Your task to perform on an android device: Search for razer blackwidow on walmart, select the first entry, and add it to the cart. Image 0: 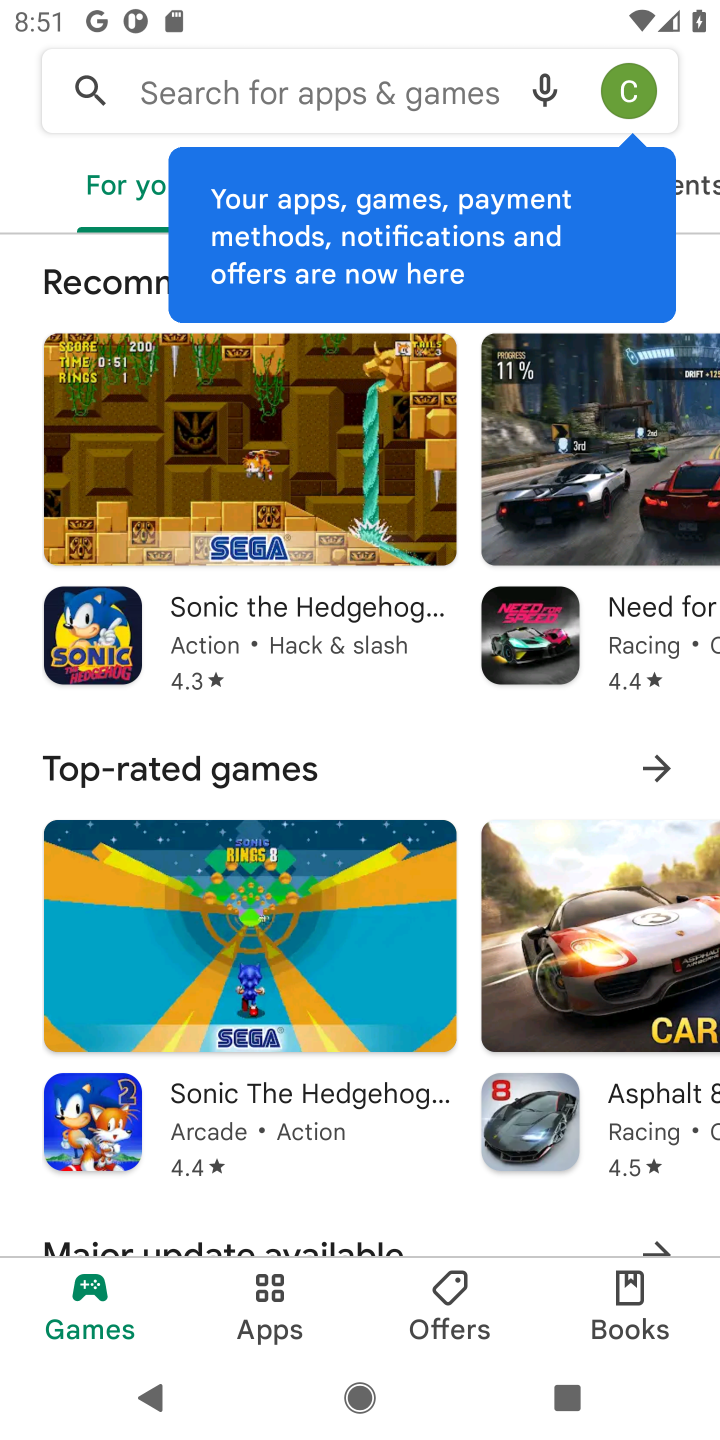
Step 0: press home button
Your task to perform on an android device: Search for razer blackwidow on walmart, select the first entry, and add it to the cart. Image 1: 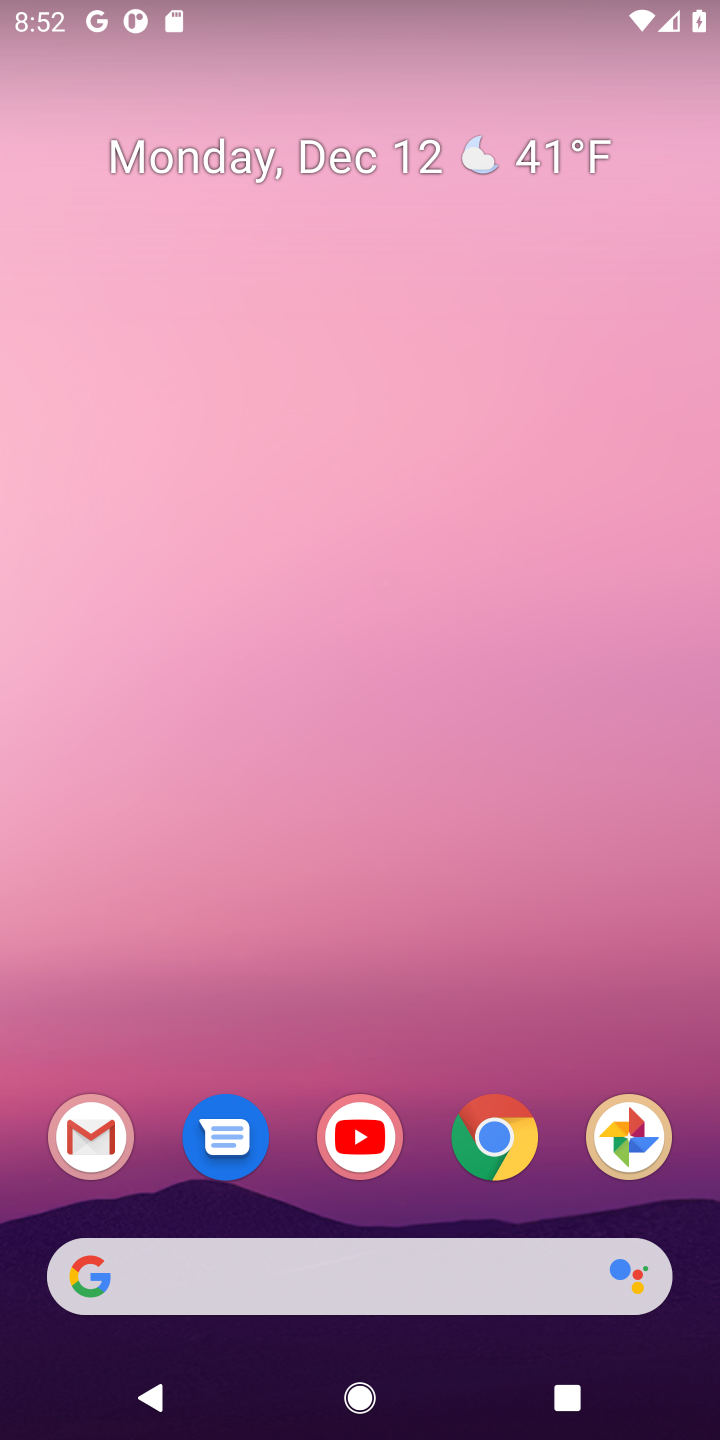
Step 1: click (494, 1135)
Your task to perform on an android device: Search for razer blackwidow on walmart, select the first entry, and add it to the cart. Image 2: 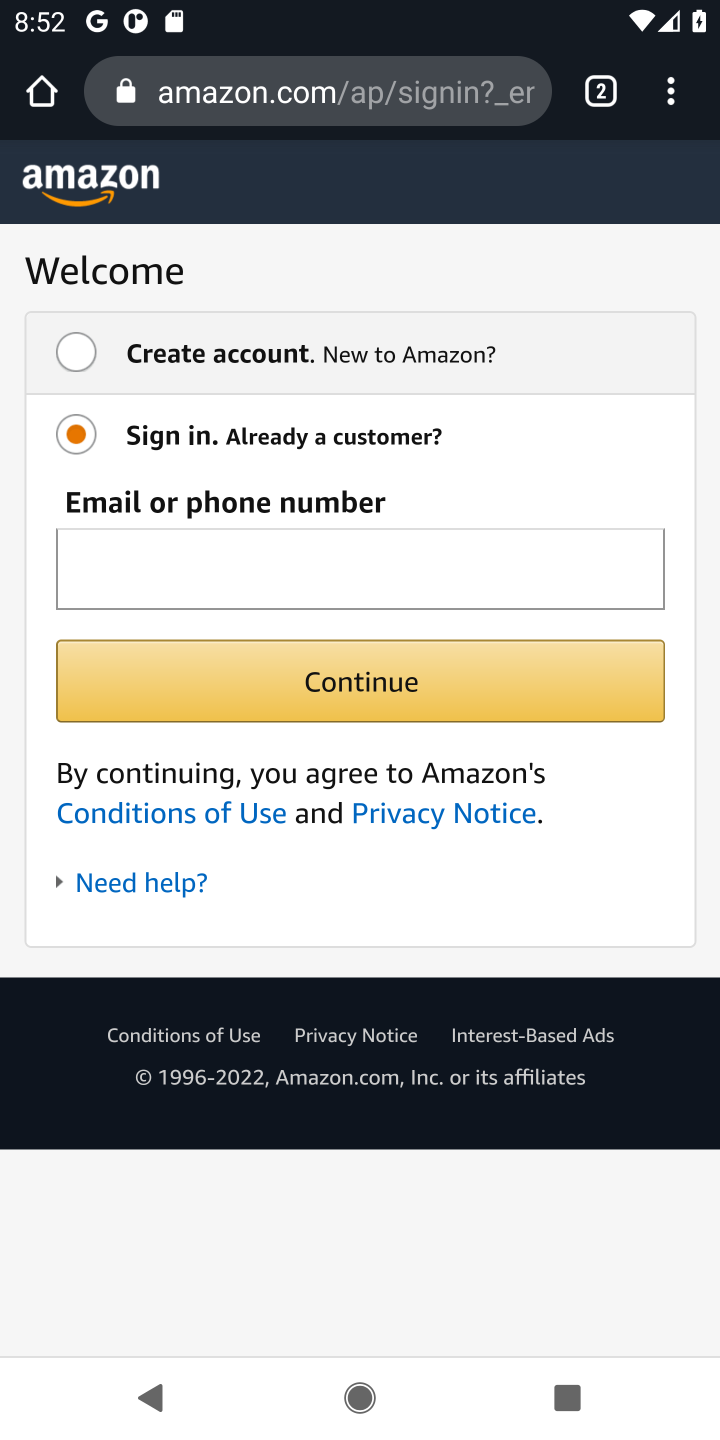
Step 2: click (336, 86)
Your task to perform on an android device: Search for razer blackwidow on walmart, select the first entry, and add it to the cart. Image 3: 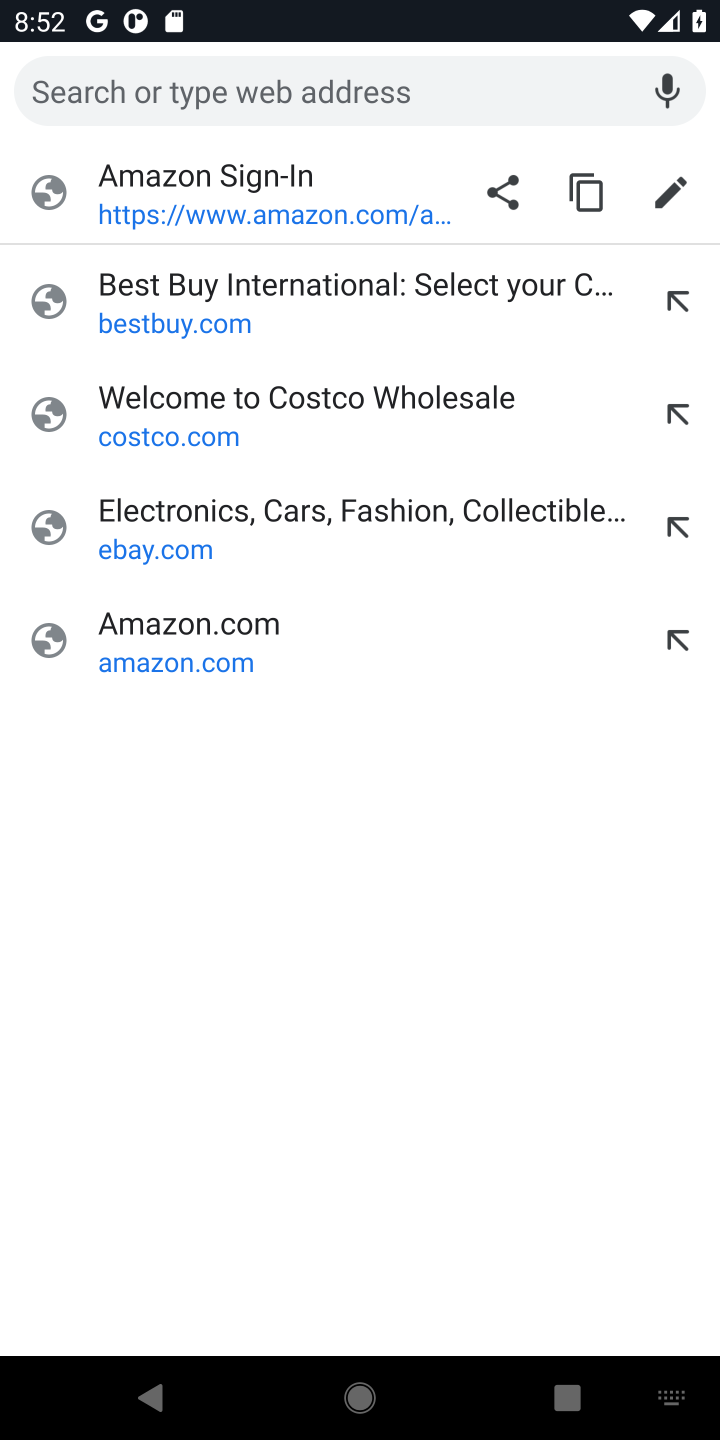
Step 3: type "WALMART"
Your task to perform on an android device: Search for razer blackwidow on walmart, select the first entry, and add it to the cart. Image 4: 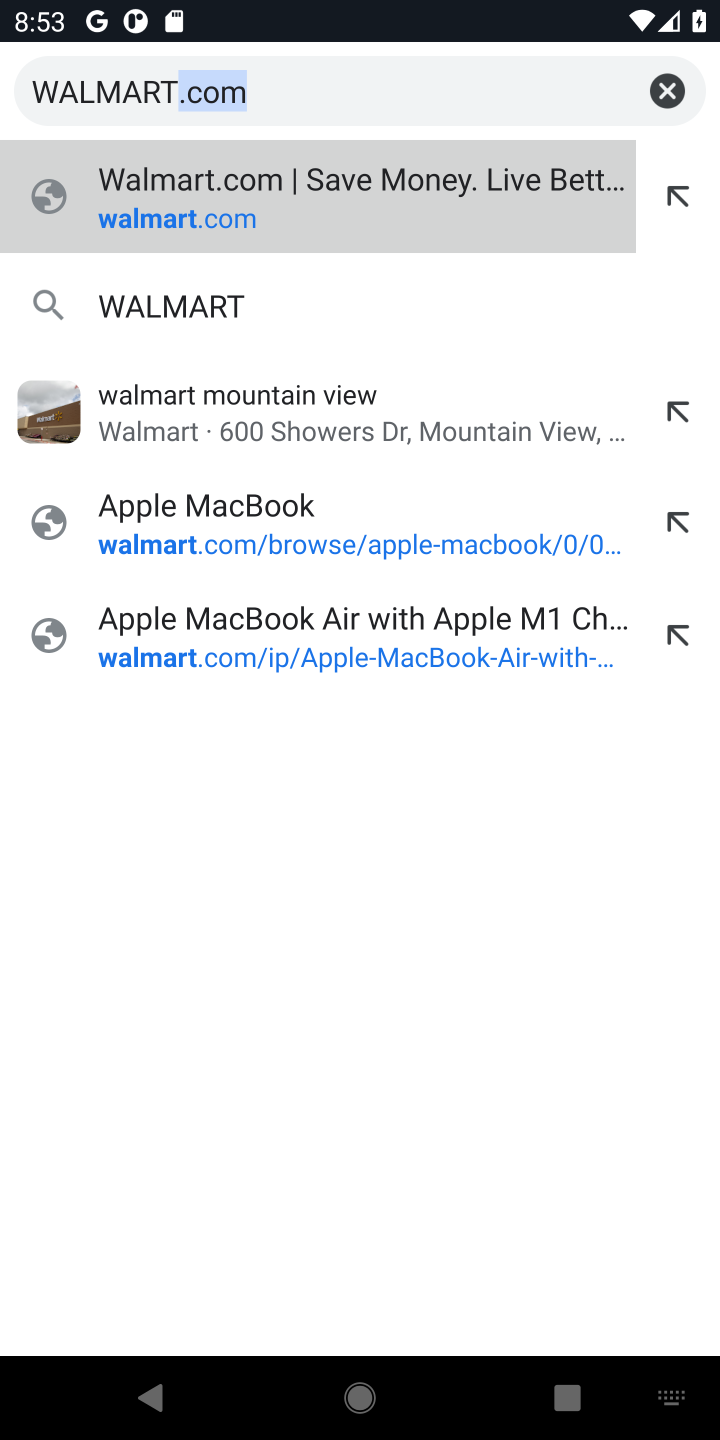
Step 4: click (270, 214)
Your task to perform on an android device: Search for razer blackwidow on walmart, select the first entry, and add it to the cart. Image 5: 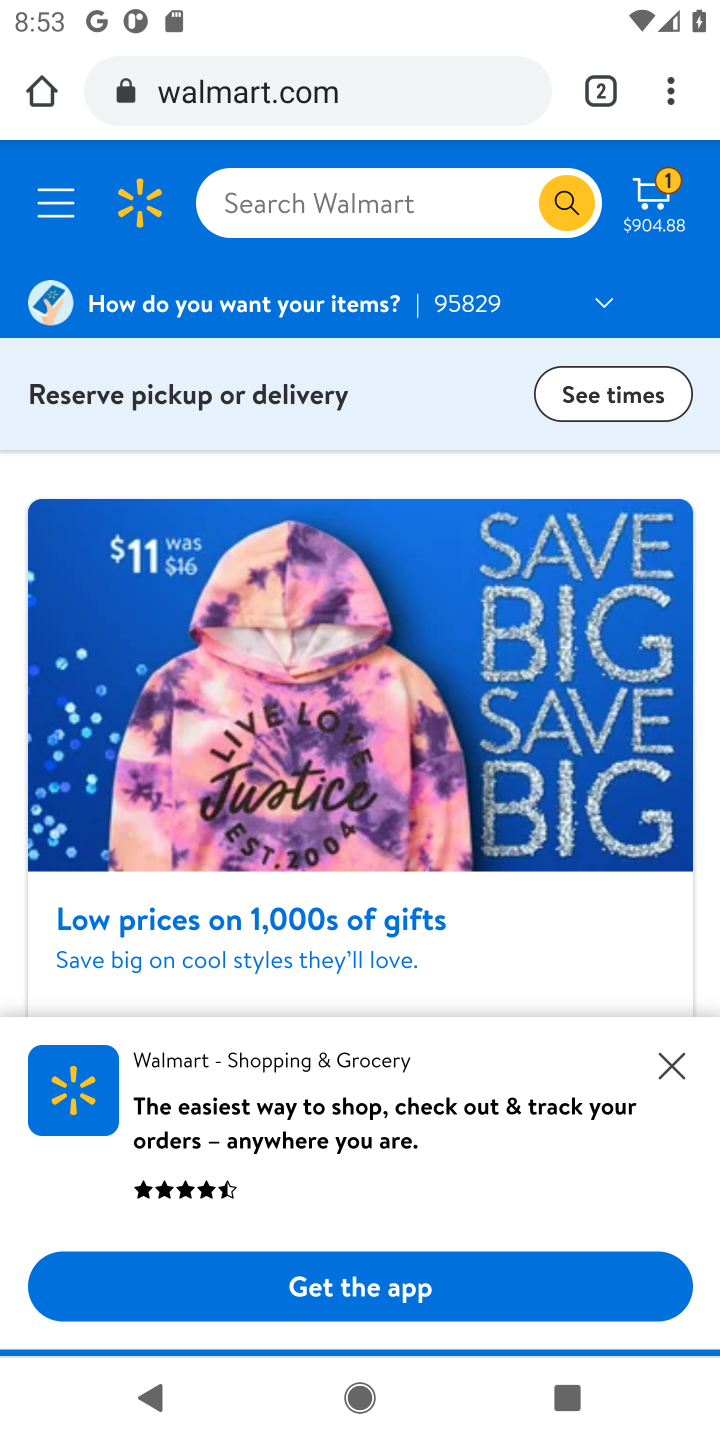
Step 5: click (412, 187)
Your task to perform on an android device: Search for razer blackwidow on walmart, select the first entry, and add it to the cart. Image 6: 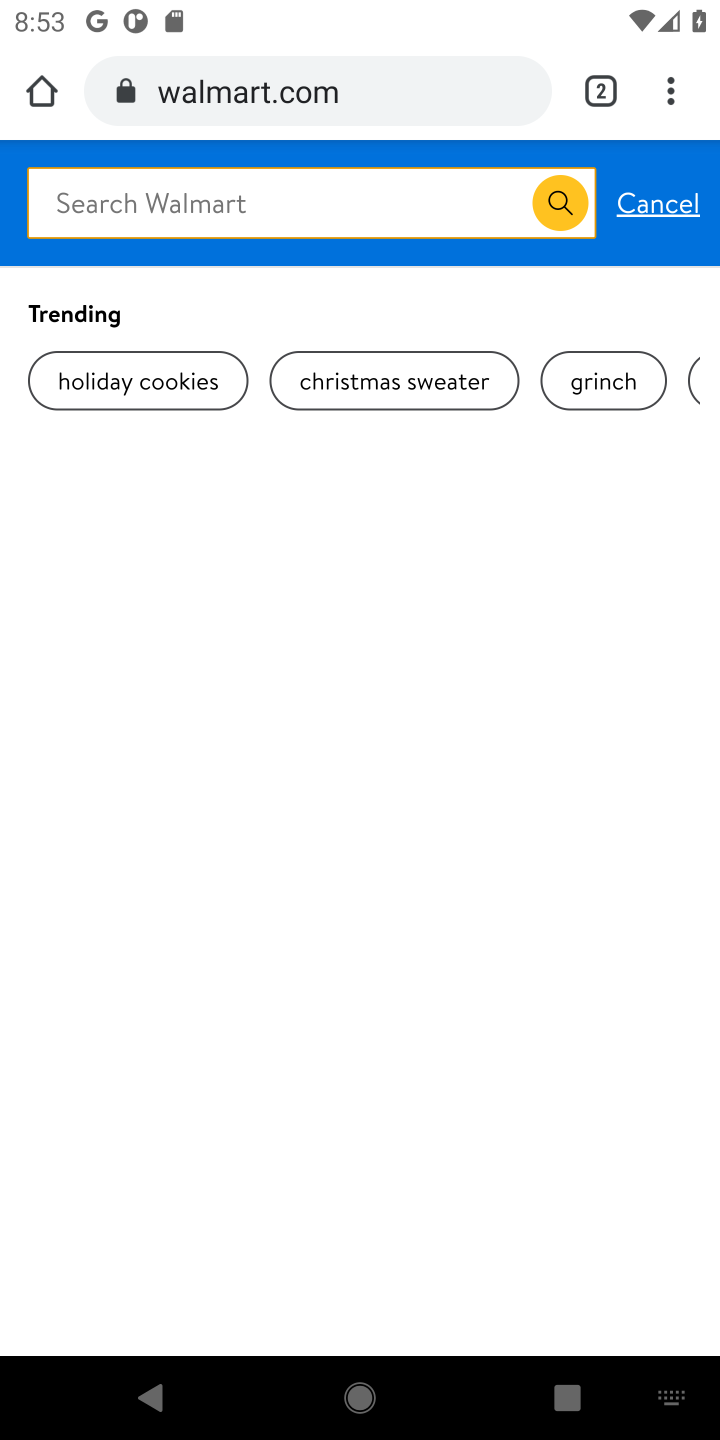
Step 6: type "razer blackwidow"
Your task to perform on an android device: Search for razer blackwidow on walmart, select the first entry, and add it to the cart. Image 7: 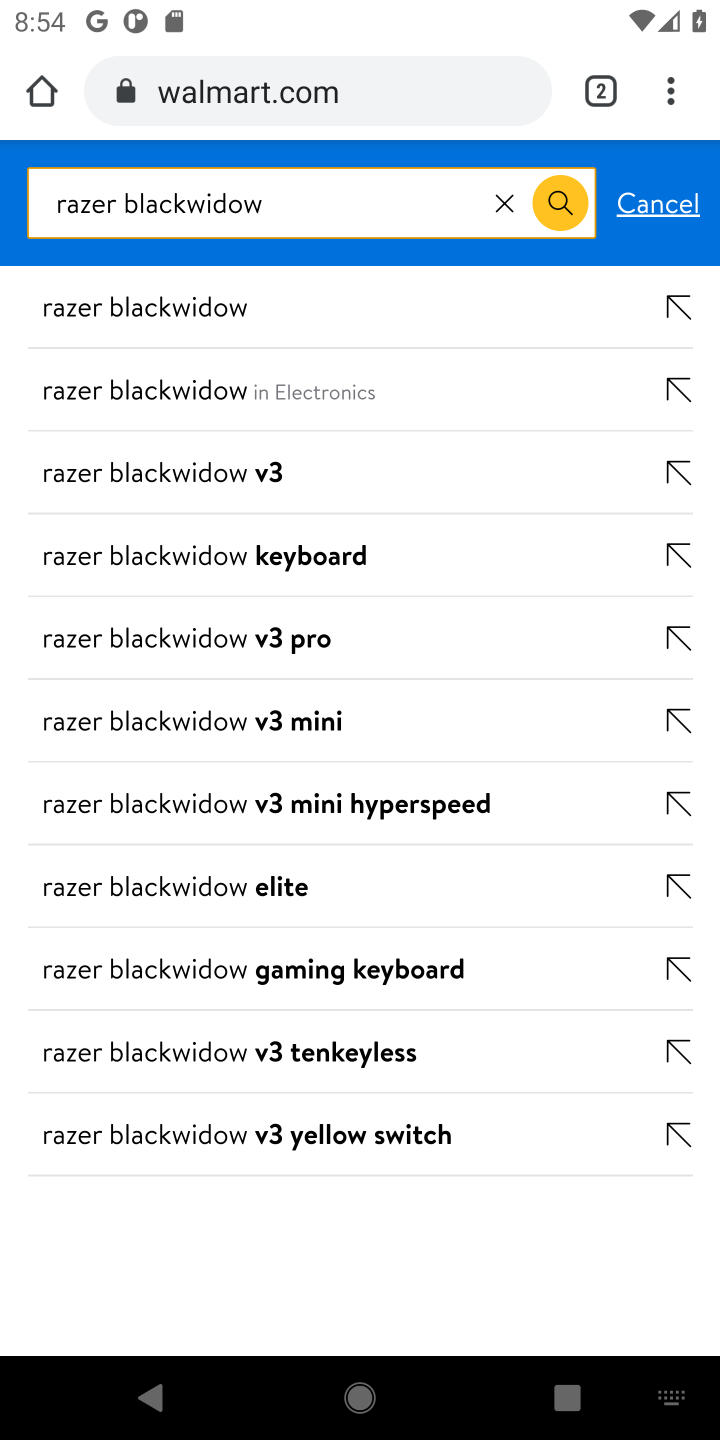
Step 7: click (235, 312)
Your task to perform on an android device: Search for razer blackwidow on walmart, select the first entry, and add it to the cart. Image 8: 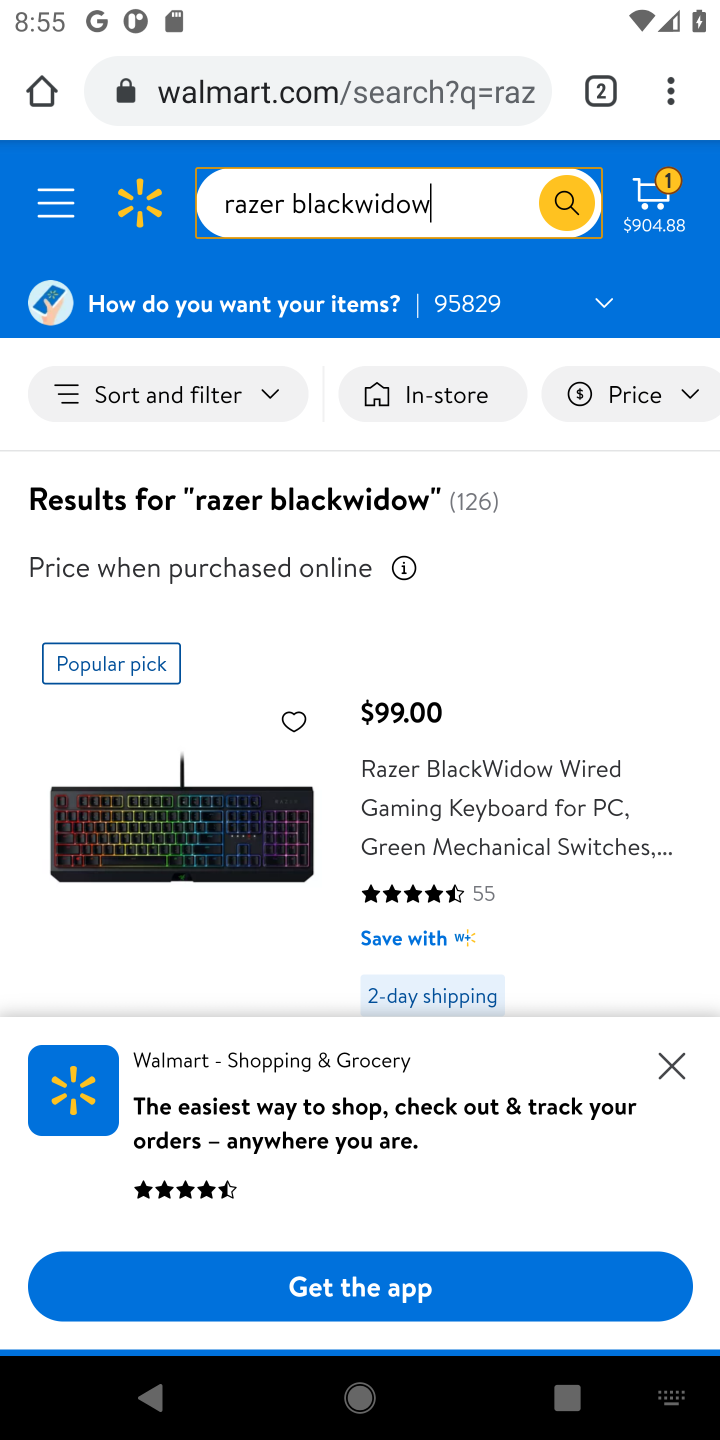
Step 8: click (539, 807)
Your task to perform on an android device: Search for razer blackwidow on walmart, select the first entry, and add it to the cart. Image 9: 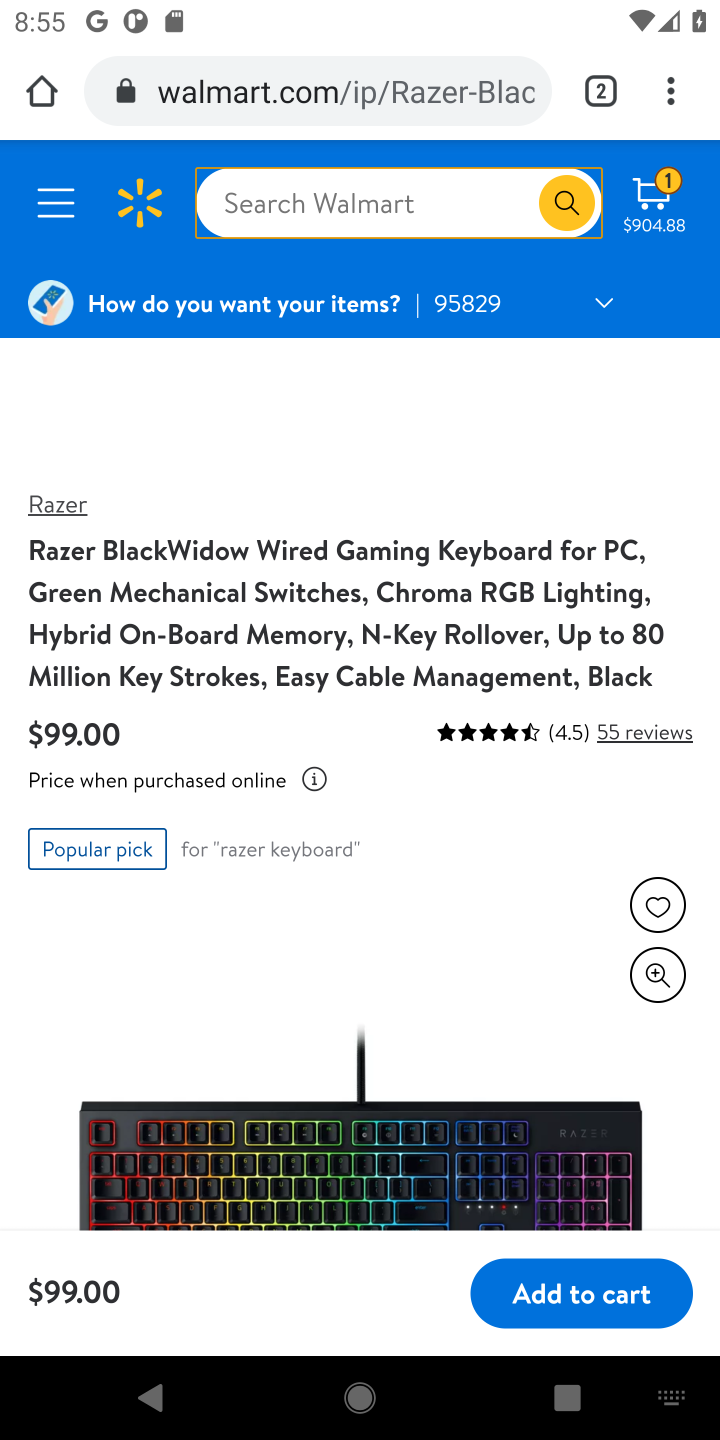
Step 9: click (599, 1295)
Your task to perform on an android device: Search for razer blackwidow on walmart, select the first entry, and add it to the cart. Image 10: 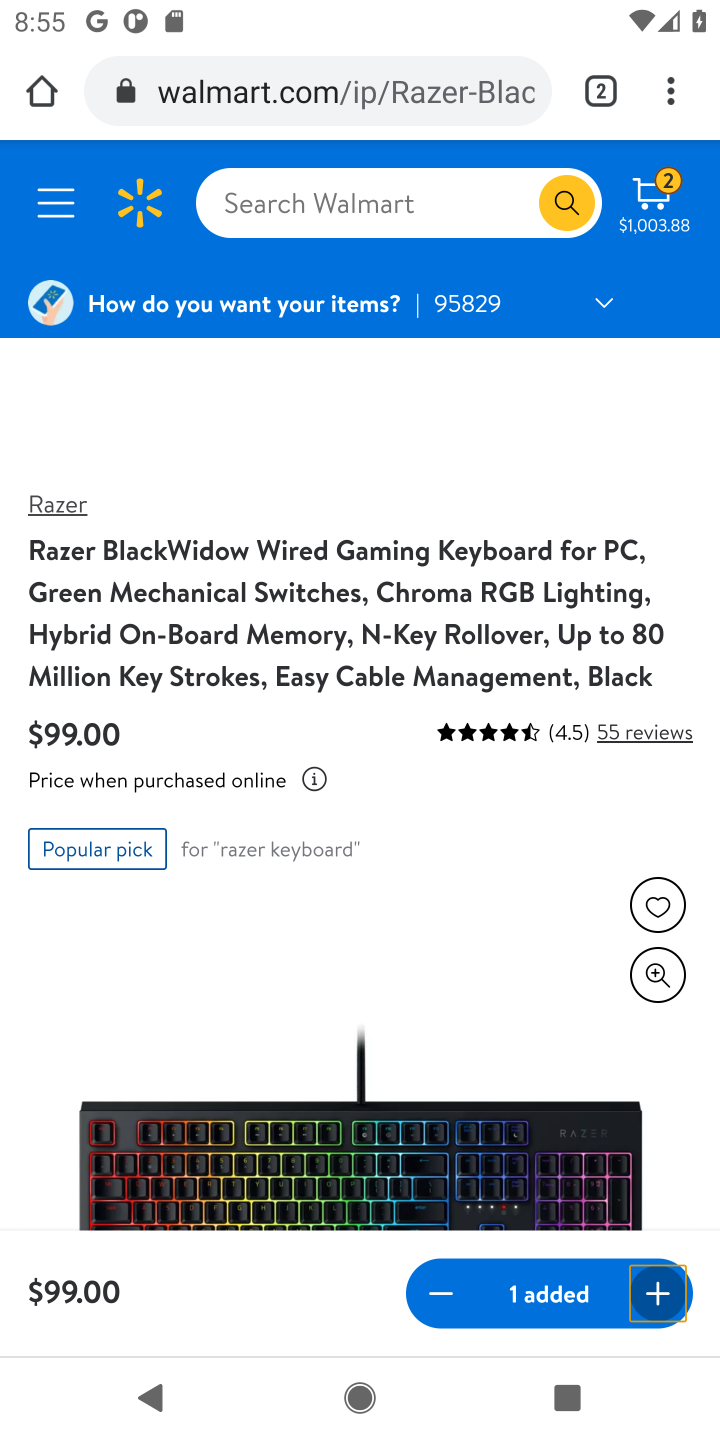
Step 10: task complete